Your task to perform on an android device: open wifi settings Image 0: 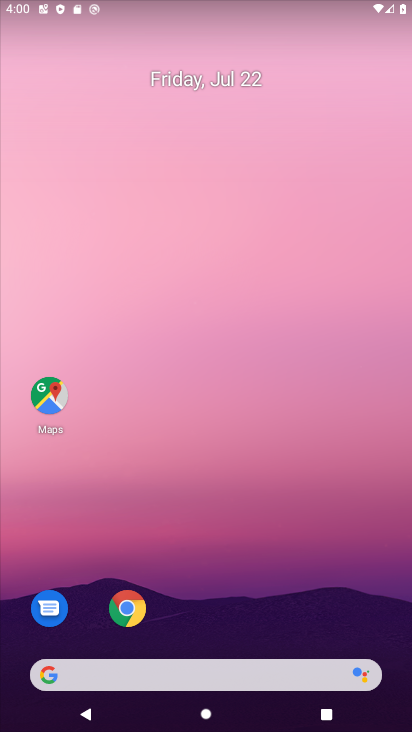
Step 0: drag from (223, 708) to (248, 130)
Your task to perform on an android device: open wifi settings Image 1: 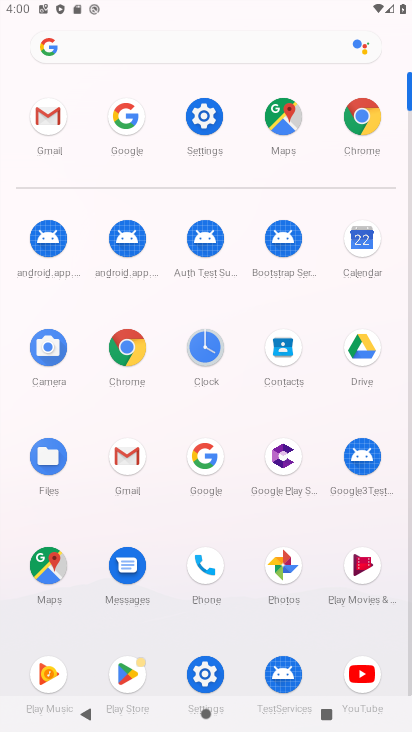
Step 1: click (208, 108)
Your task to perform on an android device: open wifi settings Image 2: 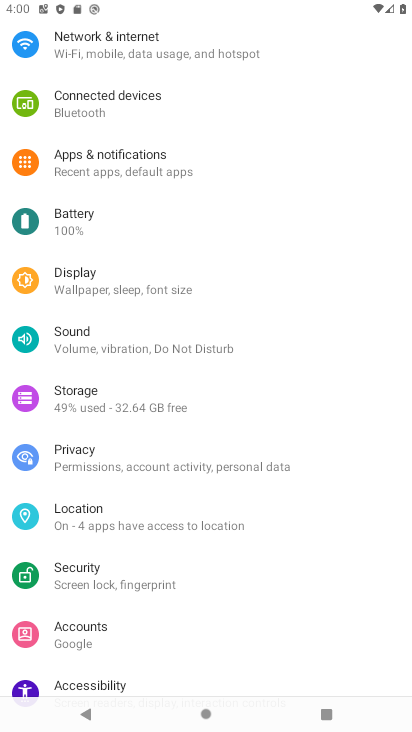
Step 2: drag from (149, 137) to (137, 570)
Your task to perform on an android device: open wifi settings Image 3: 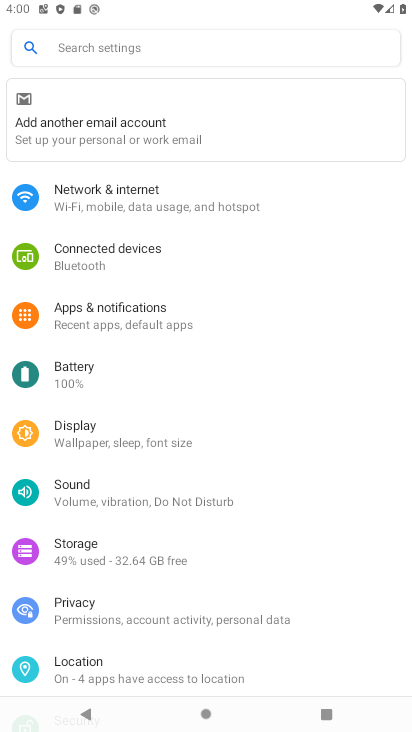
Step 3: click (100, 192)
Your task to perform on an android device: open wifi settings Image 4: 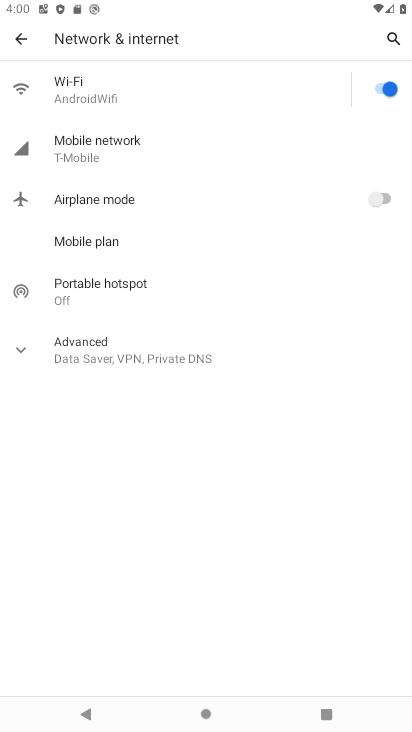
Step 4: click (73, 92)
Your task to perform on an android device: open wifi settings Image 5: 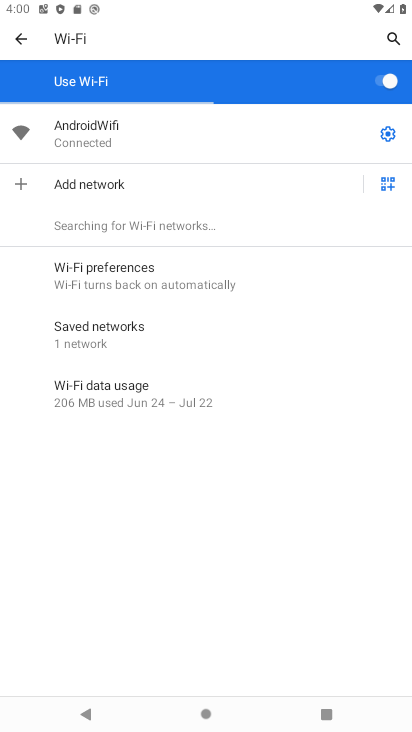
Step 5: task complete